Your task to perform on an android device: Open Chrome and go to the settings page Image 0: 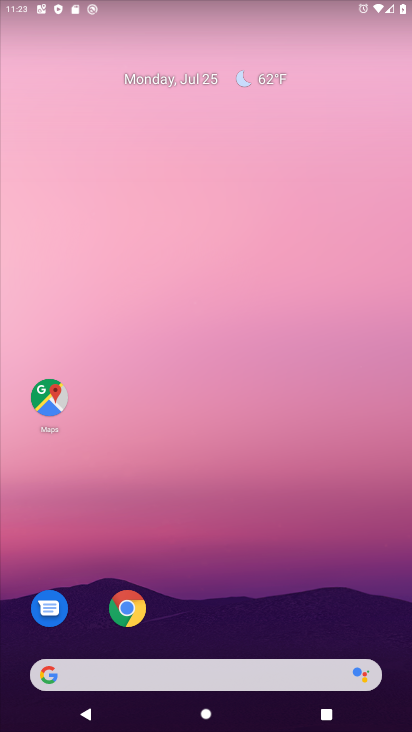
Step 0: click (117, 608)
Your task to perform on an android device: Open Chrome and go to the settings page Image 1: 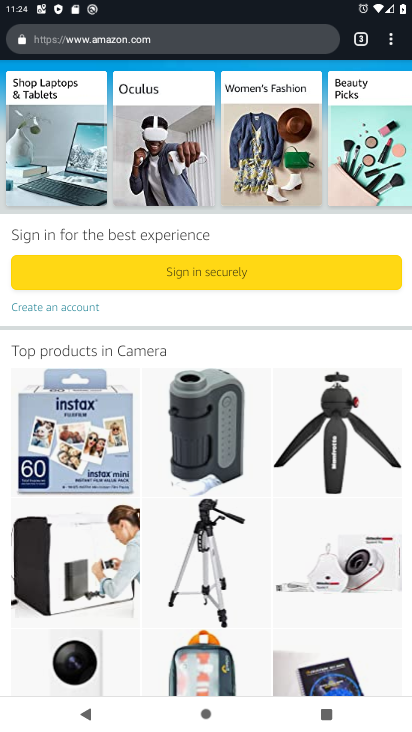
Step 1: click (391, 42)
Your task to perform on an android device: Open Chrome and go to the settings page Image 2: 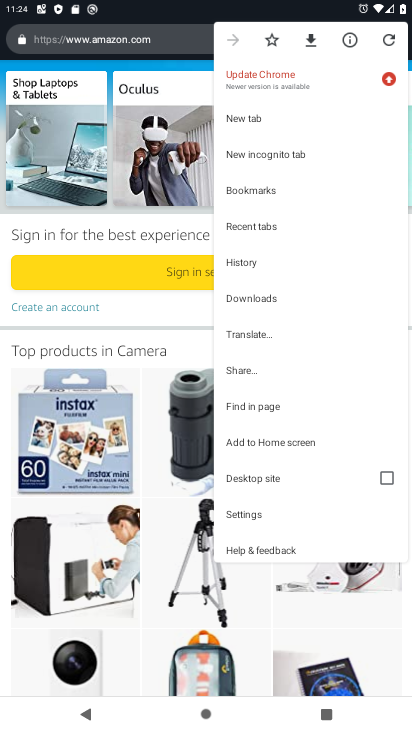
Step 2: click (244, 512)
Your task to perform on an android device: Open Chrome and go to the settings page Image 3: 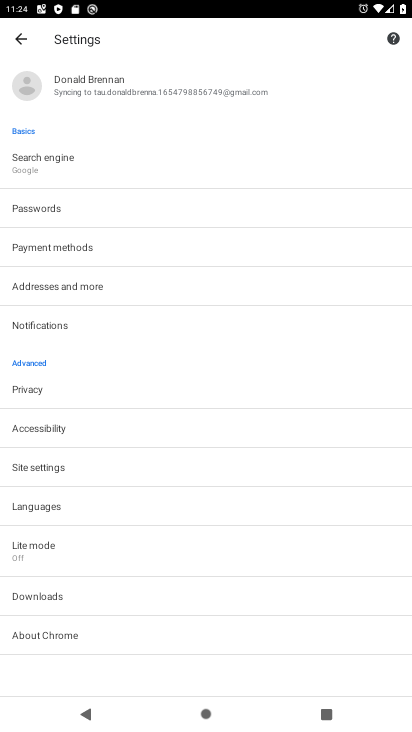
Step 3: task complete